Your task to perform on an android device: move a message to another label in the gmail app Image 0: 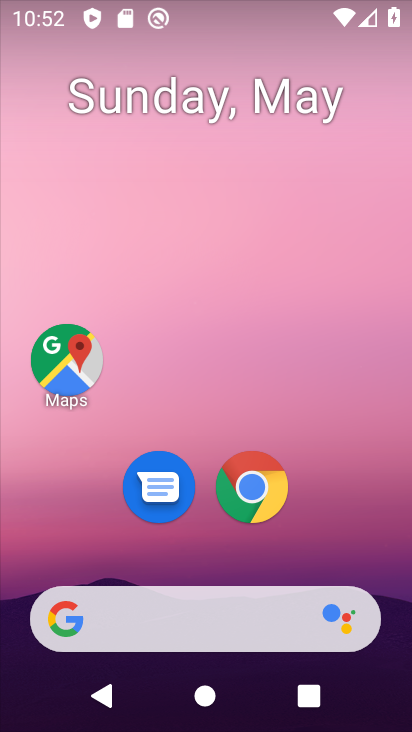
Step 0: drag from (335, 565) to (342, 2)
Your task to perform on an android device: move a message to another label in the gmail app Image 1: 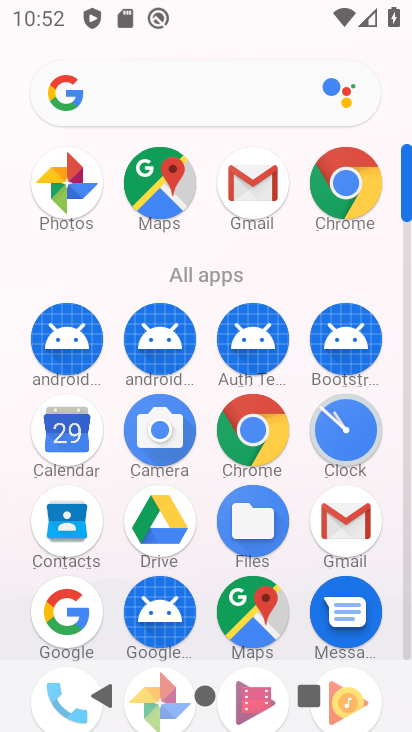
Step 1: click (257, 186)
Your task to perform on an android device: move a message to another label in the gmail app Image 2: 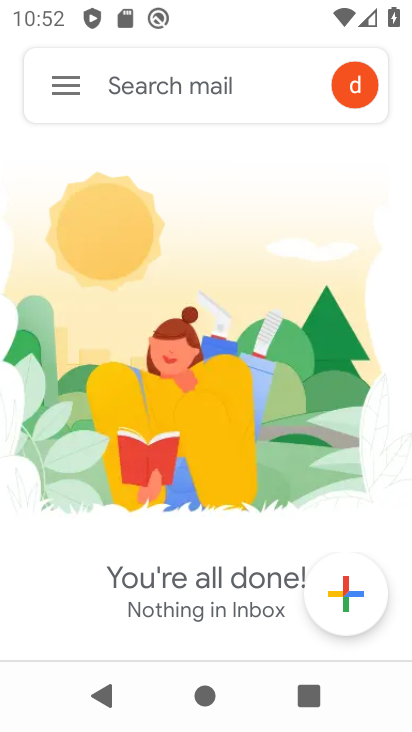
Step 2: click (67, 91)
Your task to perform on an android device: move a message to another label in the gmail app Image 3: 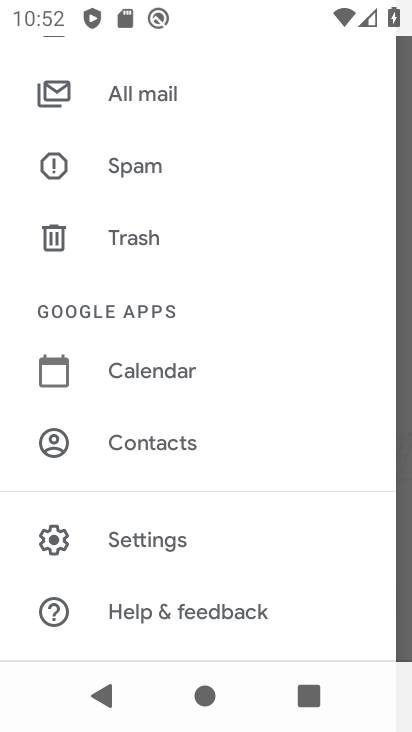
Step 3: click (151, 106)
Your task to perform on an android device: move a message to another label in the gmail app Image 4: 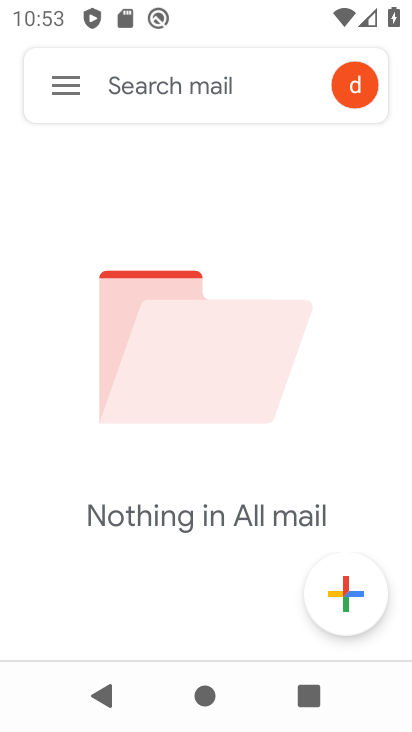
Step 4: task complete